Your task to perform on an android device: What is the capital of Canada? Image 0: 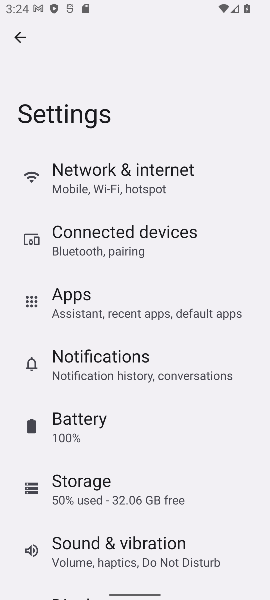
Step 0: press home button
Your task to perform on an android device: What is the capital of Canada? Image 1: 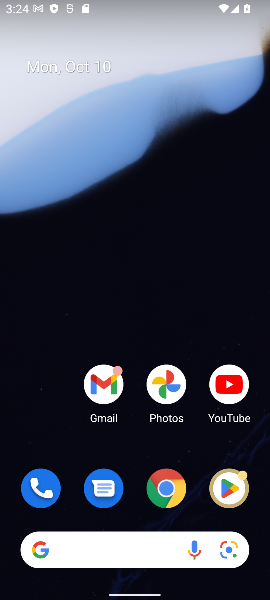
Step 1: click (93, 546)
Your task to perform on an android device: What is the capital of Canada? Image 2: 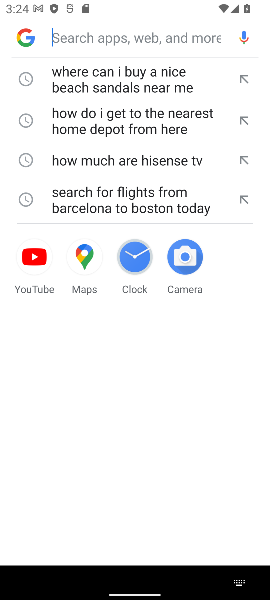
Step 2: click (70, 41)
Your task to perform on an android device: What is the capital of Canada? Image 3: 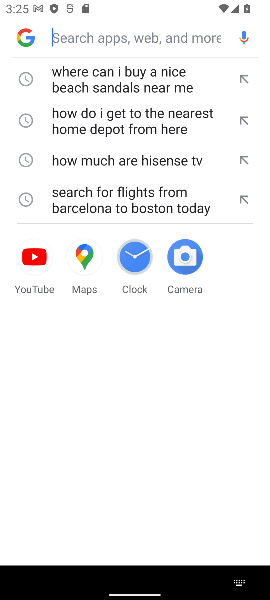
Step 3: type "What is the capital of Canada"
Your task to perform on an android device: What is the capital of Canada? Image 4: 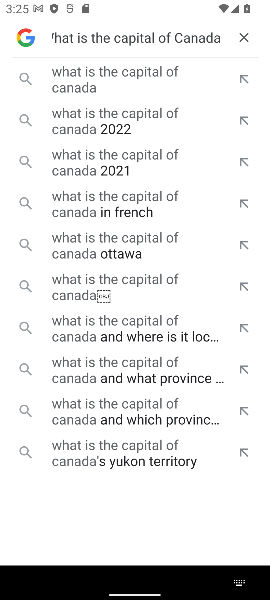
Step 4: click (126, 90)
Your task to perform on an android device: What is the capital of Canada? Image 5: 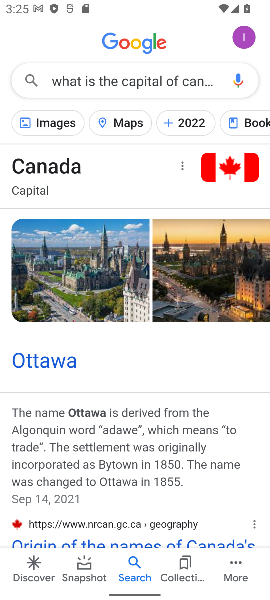
Step 5: task complete